Your task to perform on an android device: install app "LiveIn - Share Your Moment" Image 0: 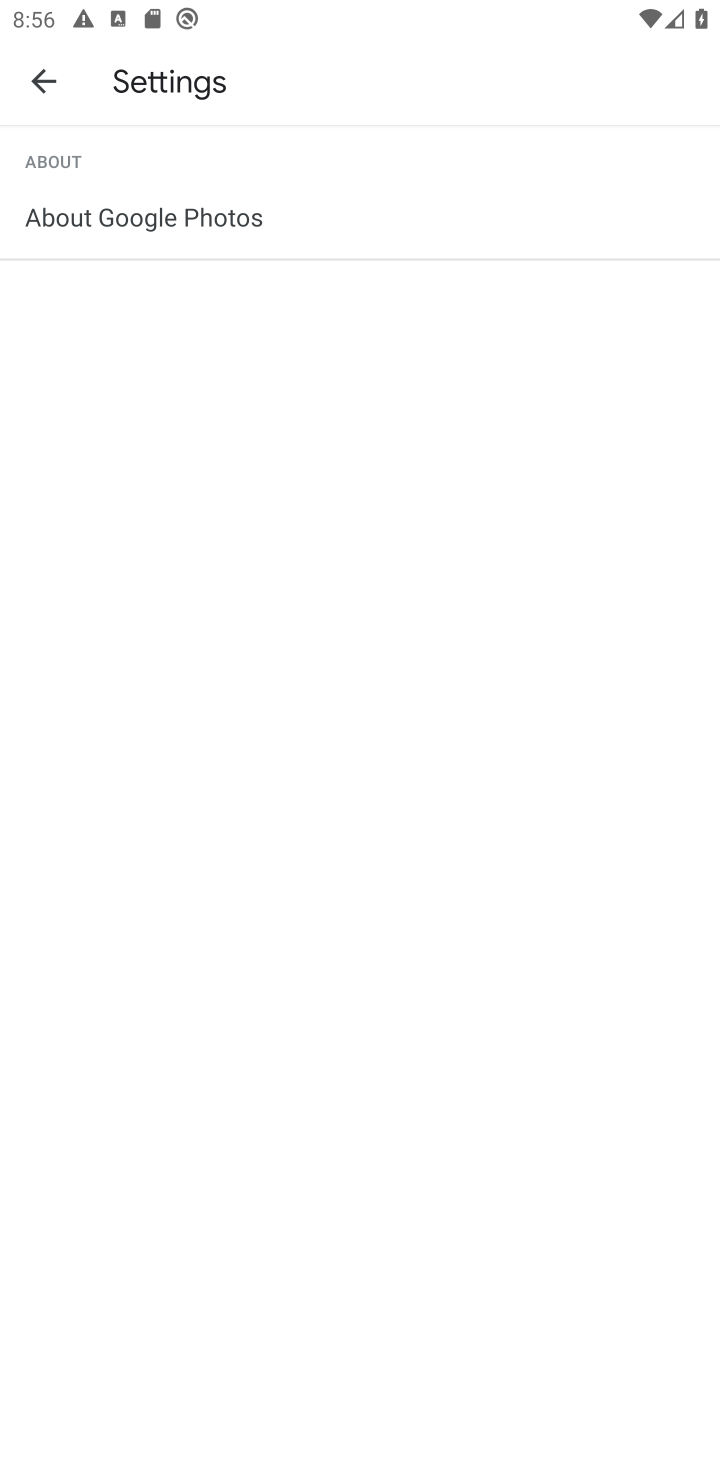
Step 0: press home button
Your task to perform on an android device: install app "LiveIn - Share Your Moment" Image 1: 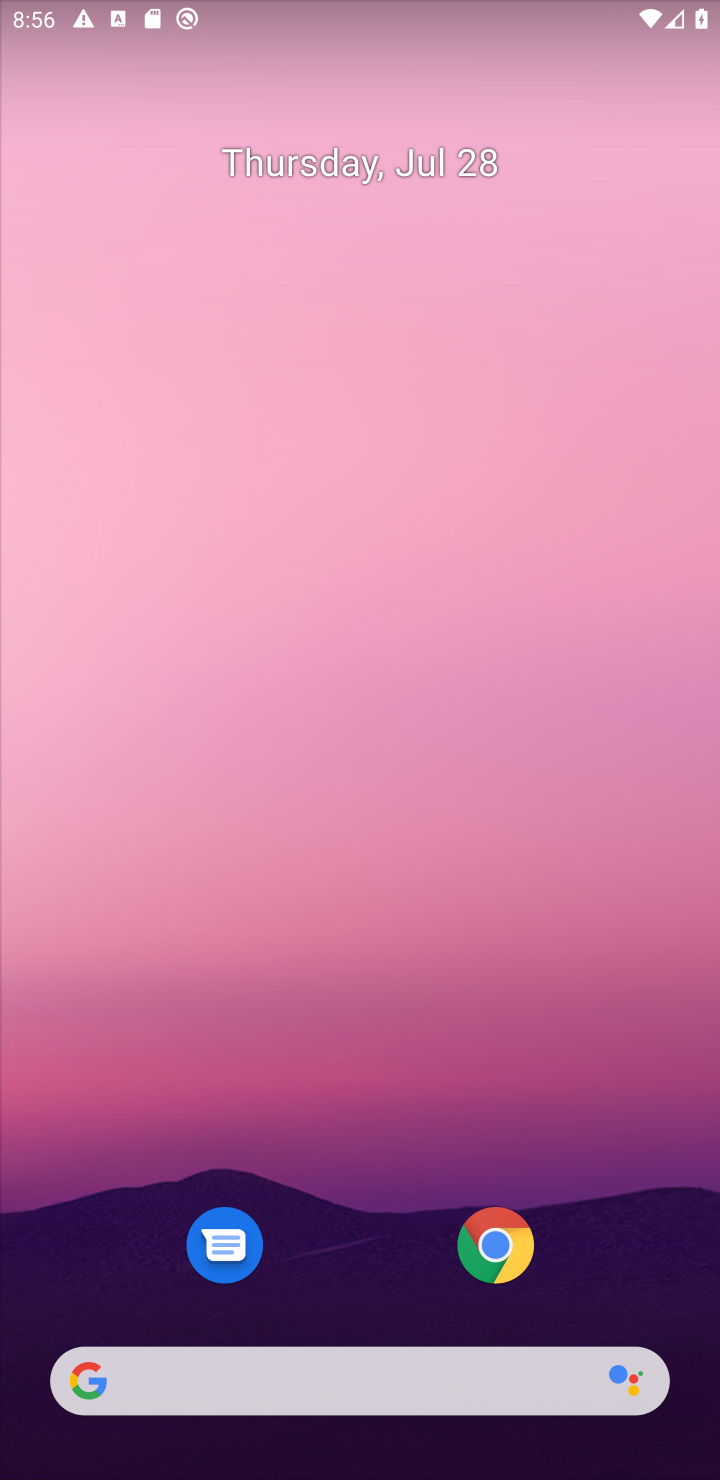
Step 1: drag from (362, 1259) to (418, 0)
Your task to perform on an android device: install app "LiveIn - Share Your Moment" Image 2: 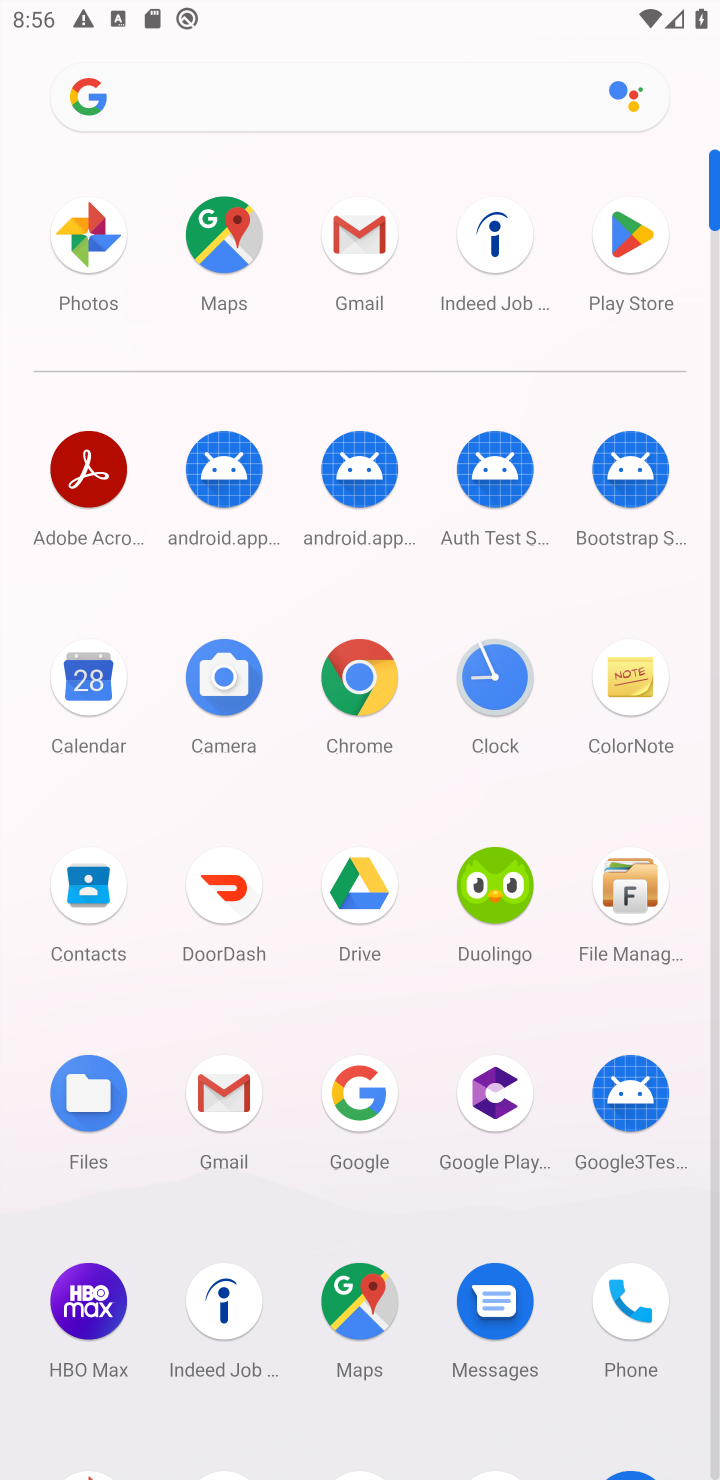
Step 2: click (619, 243)
Your task to perform on an android device: install app "LiveIn - Share Your Moment" Image 3: 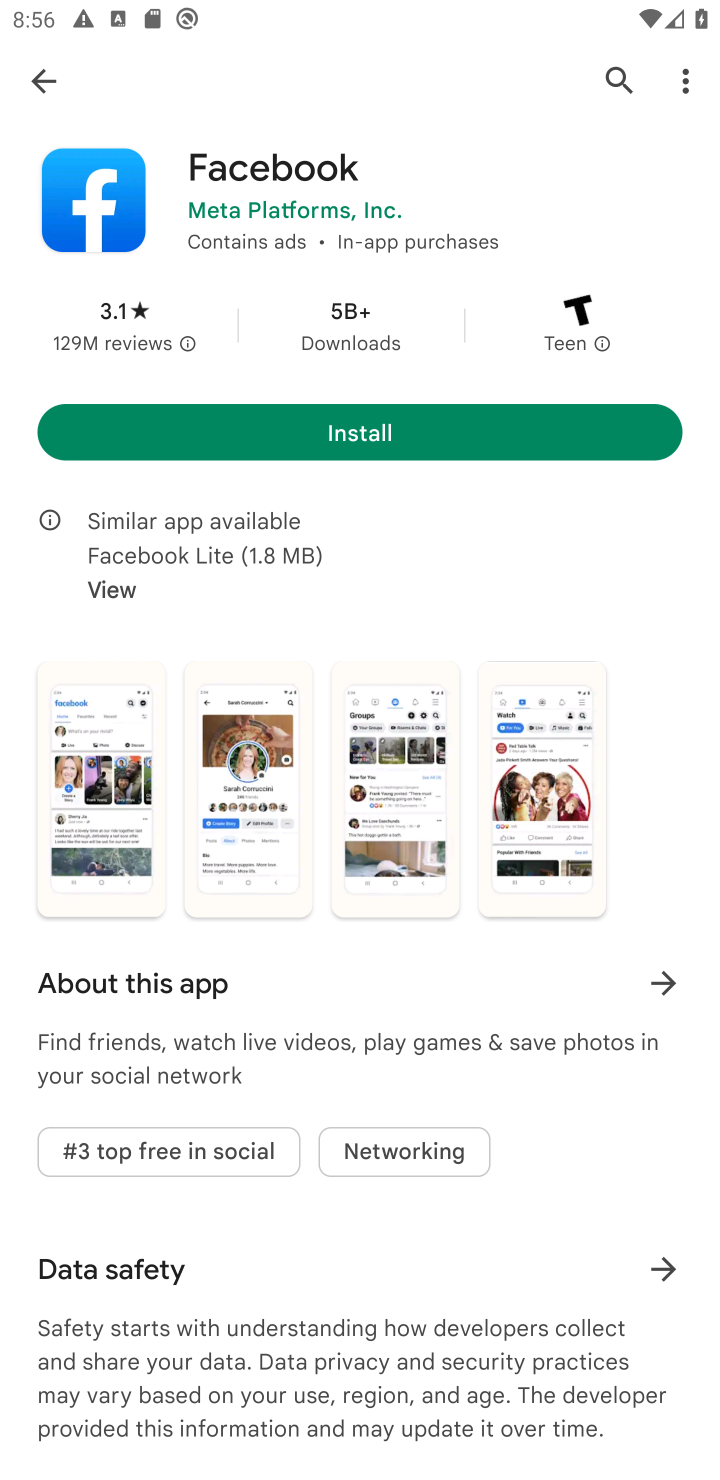
Step 3: click (618, 76)
Your task to perform on an android device: install app "LiveIn - Share Your Moment" Image 4: 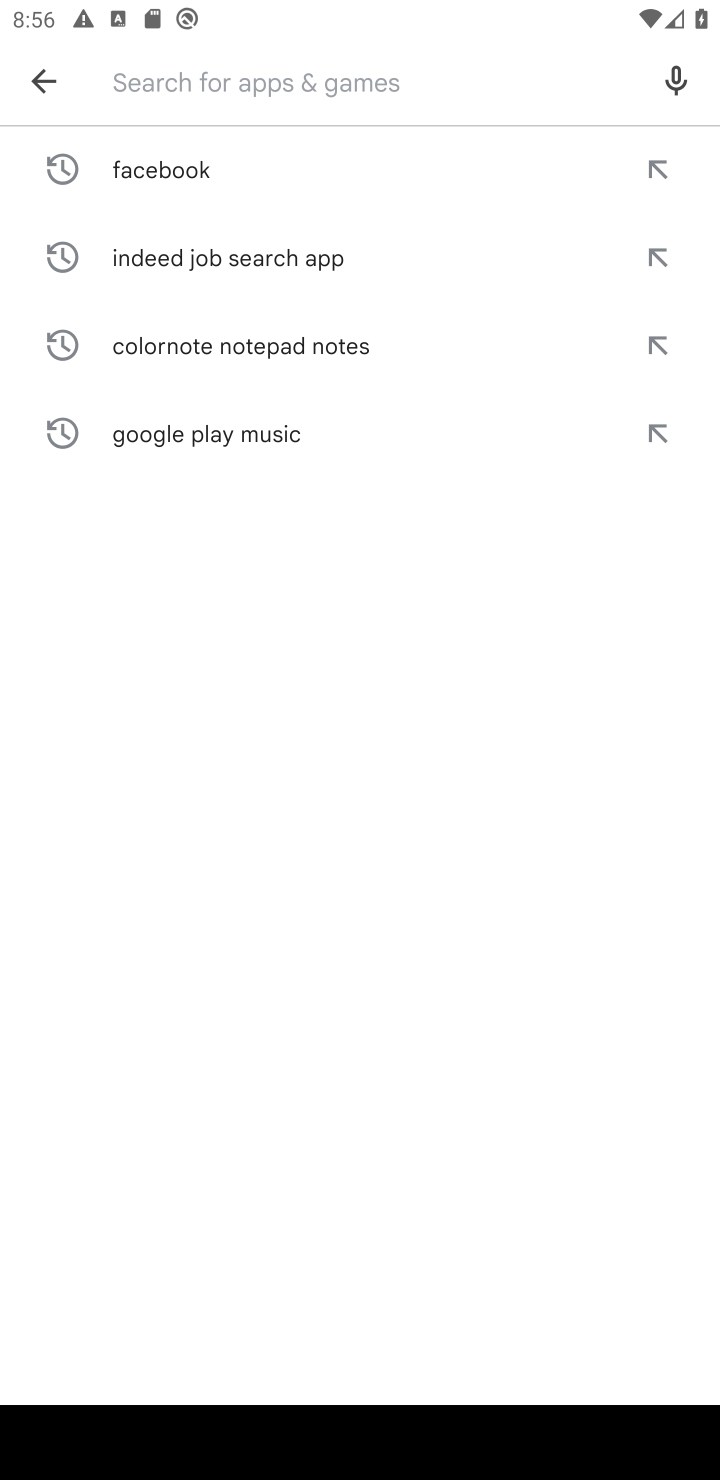
Step 4: type "LiveIn - Share your moment"
Your task to perform on an android device: install app "LiveIn - Share Your Moment" Image 5: 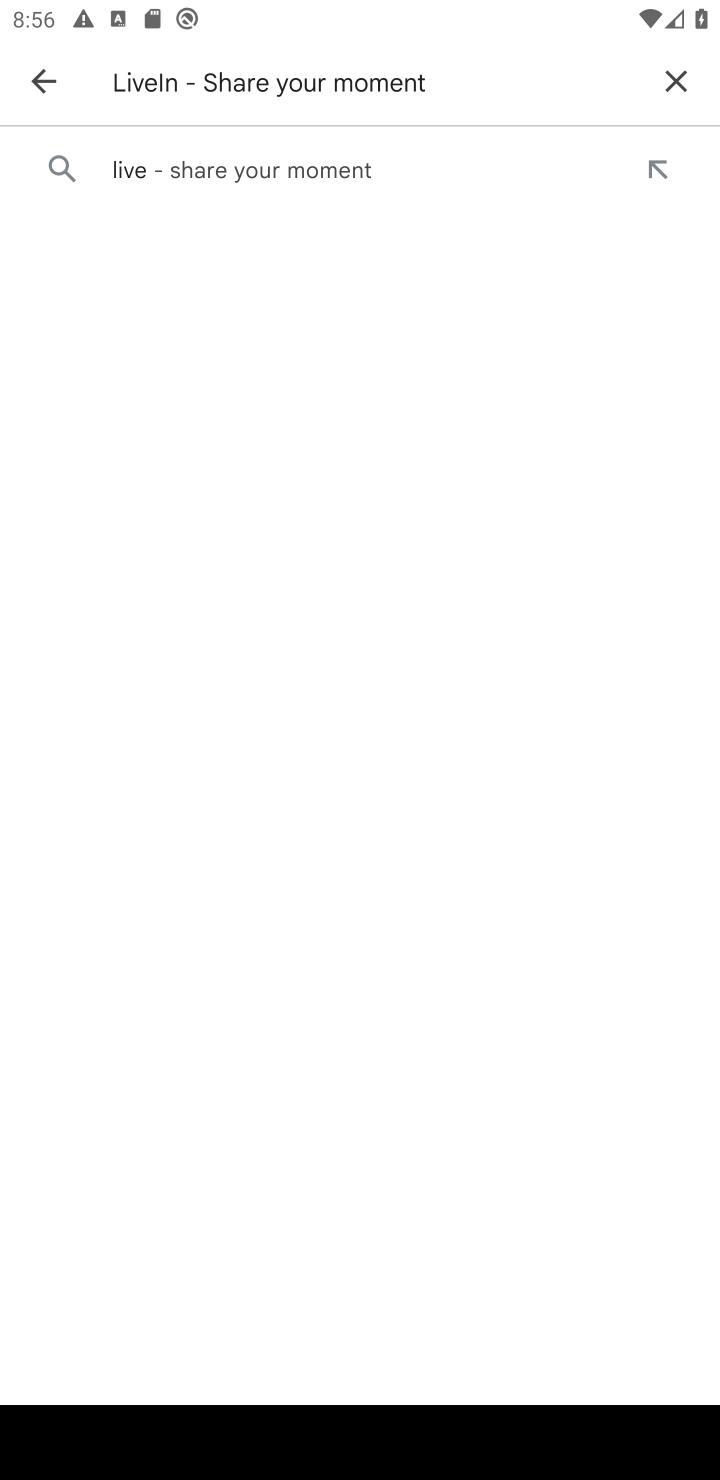
Step 5: click (324, 173)
Your task to perform on an android device: install app "LiveIn - Share Your Moment" Image 6: 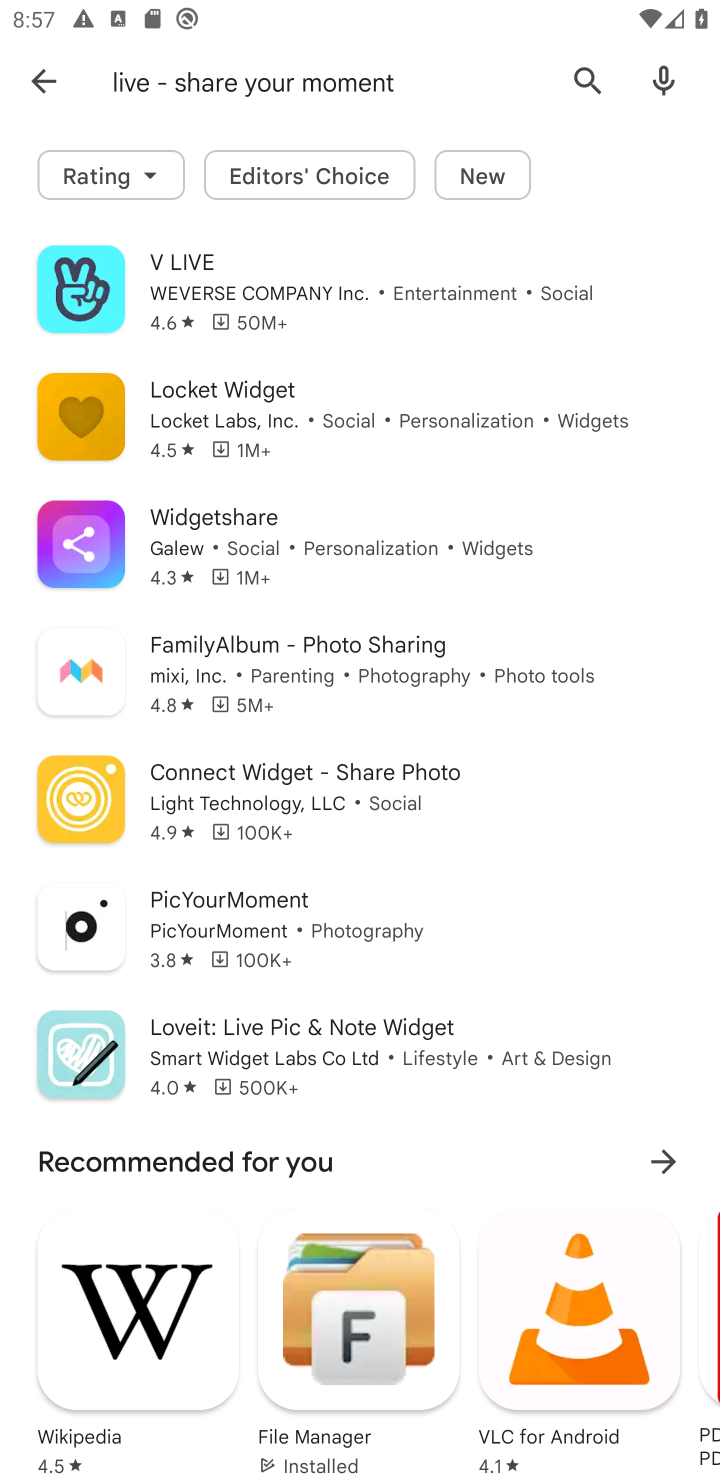
Step 6: task complete